Your task to perform on an android device: change alarm snooze length Image 0: 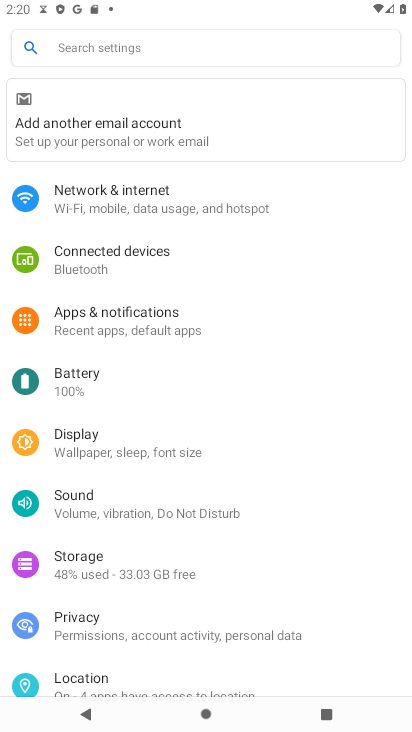
Step 0: press home button
Your task to perform on an android device: change alarm snooze length Image 1: 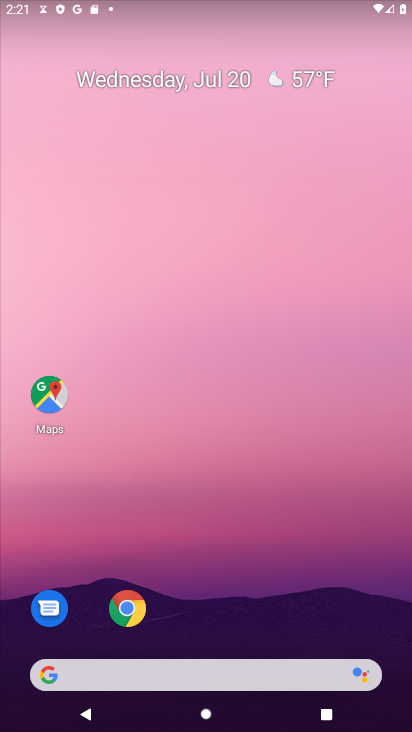
Step 1: drag from (173, 612) to (124, 88)
Your task to perform on an android device: change alarm snooze length Image 2: 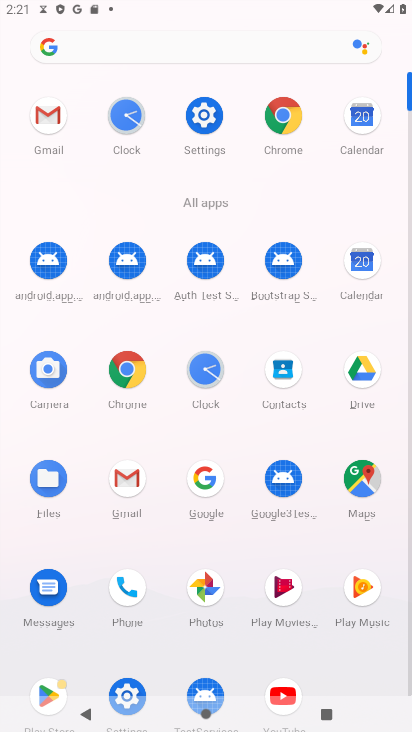
Step 2: click (205, 375)
Your task to perform on an android device: change alarm snooze length Image 3: 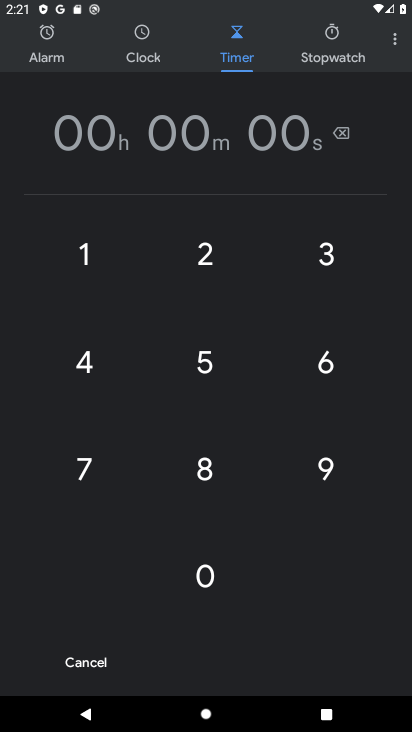
Step 3: click (399, 35)
Your task to perform on an android device: change alarm snooze length Image 4: 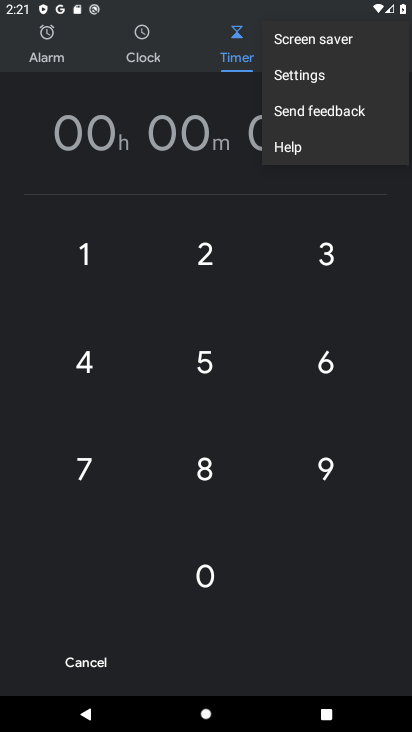
Step 4: click (326, 72)
Your task to perform on an android device: change alarm snooze length Image 5: 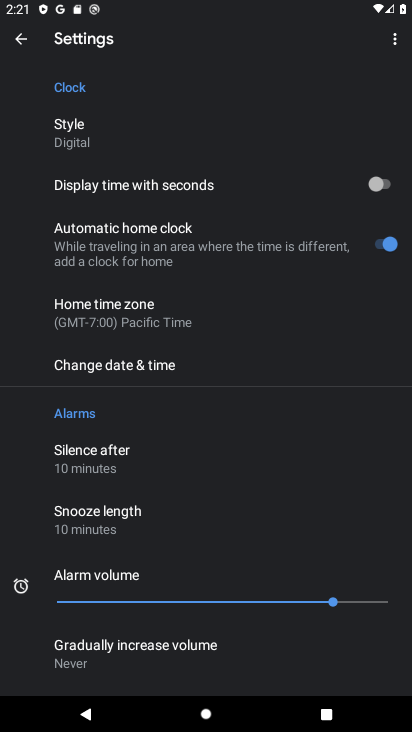
Step 5: click (74, 515)
Your task to perform on an android device: change alarm snooze length Image 6: 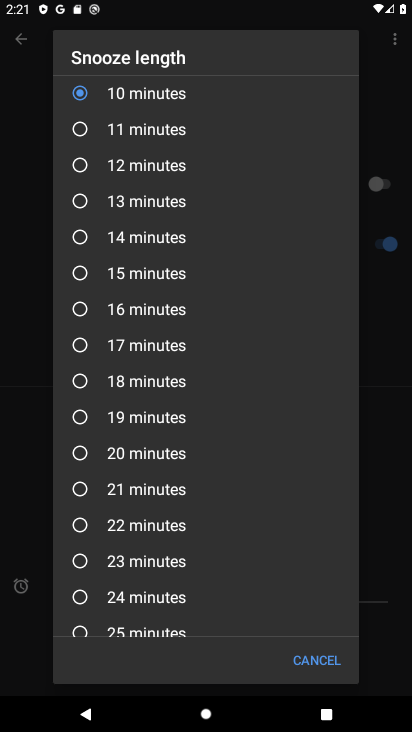
Step 6: click (83, 206)
Your task to perform on an android device: change alarm snooze length Image 7: 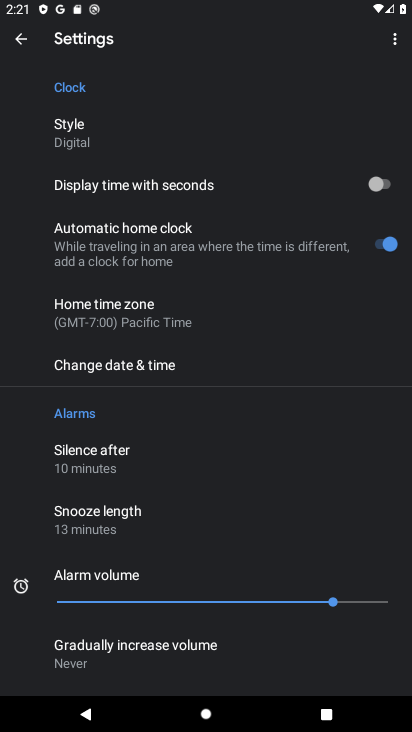
Step 7: task complete